Your task to perform on an android device: Search for seafood restaurants on Google Maps Image 0: 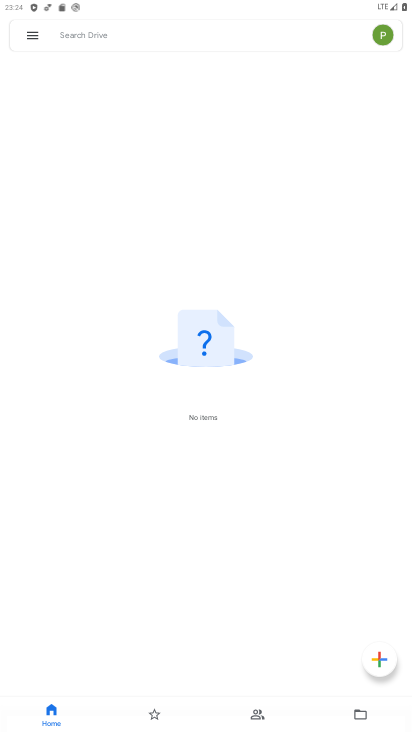
Step 0: press home button
Your task to perform on an android device: Search for seafood restaurants on Google Maps Image 1: 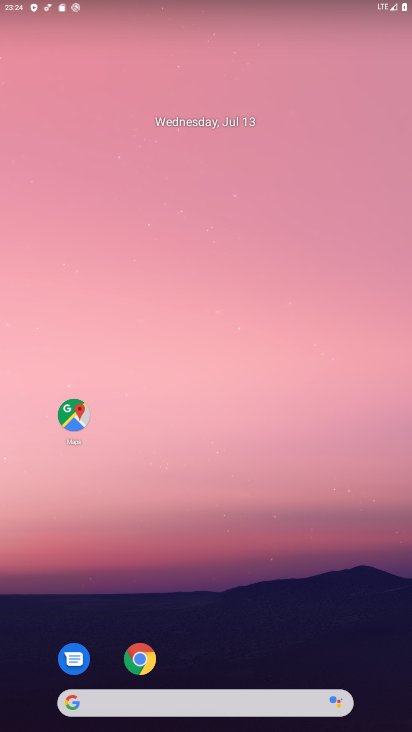
Step 1: click (71, 416)
Your task to perform on an android device: Search for seafood restaurants on Google Maps Image 2: 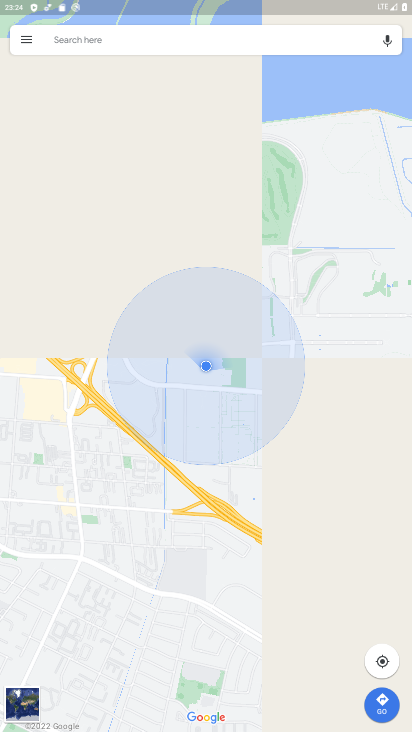
Step 2: click (91, 42)
Your task to perform on an android device: Search for seafood restaurants on Google Maps Image 3: 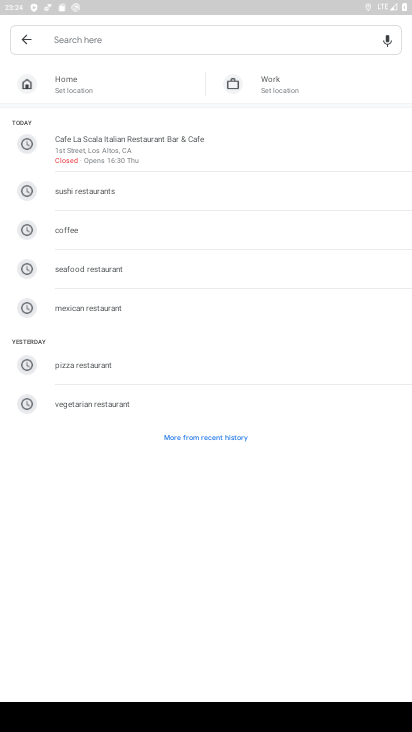
Step 3: type "seafood restaurants"
Your task to perform on an android device: Search for seafood restaurants on Google Maps Image 4: 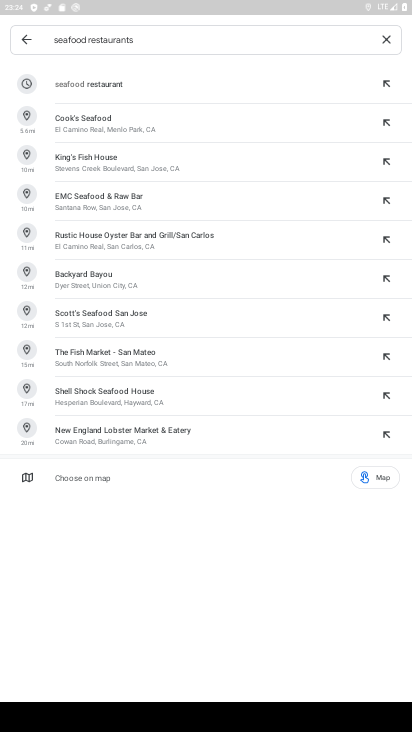
Step 4: click (75, 85)
Your task to perform on an android device: Search for seafood restaurants on Google Maps Image 5: 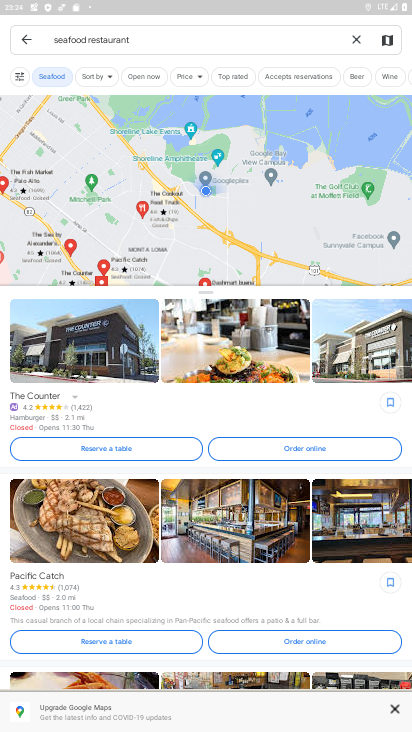
Step 5: task complete